Your task to perform on an android device: Open Google Maps and go to "Timeline" Image 0: 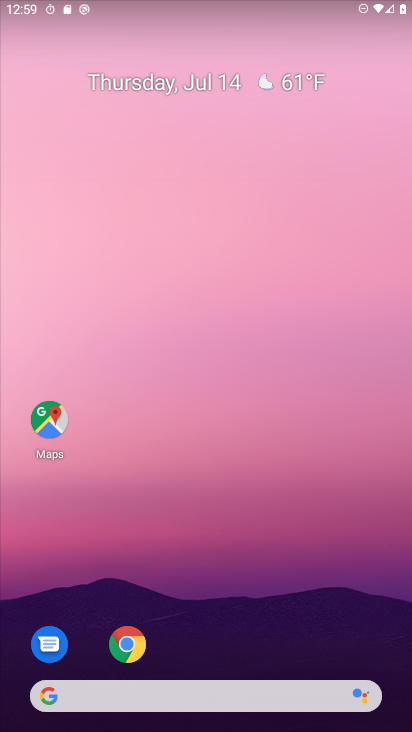
Step 0: drag from (215, 589) to (247, 151)
Your task to perform on an android device: Open Google Maps and go to "Timeline" Image 1: 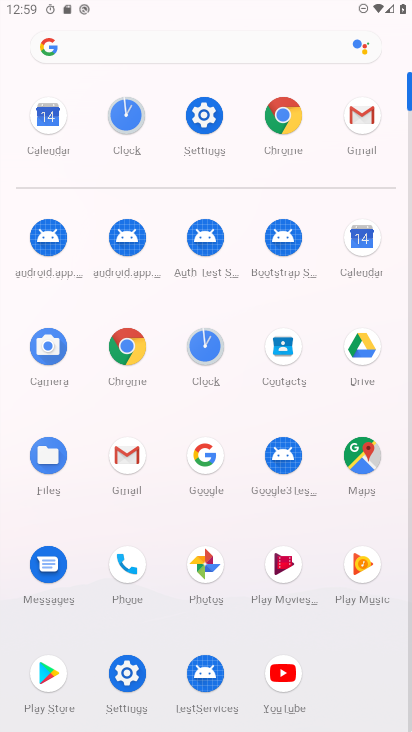
Step 1: click (362, 452)
Your task to perform on an android device: Open Google Maps and go to "Timeline" Image 2: 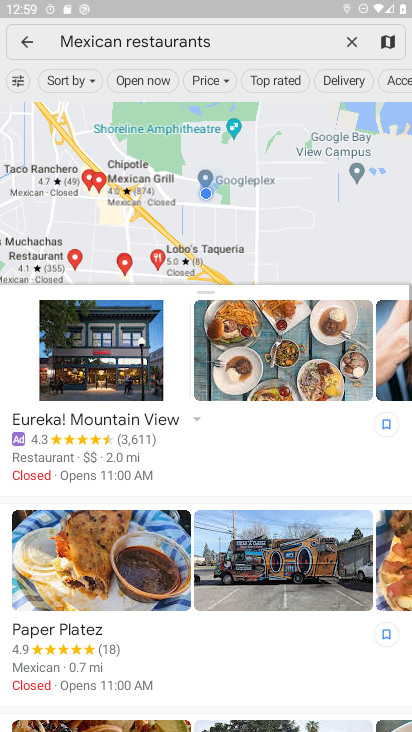
Step 2: click (46, 43)
Your task to perform on an android device: Open Google Maps and go to "Timeline" Image 3: 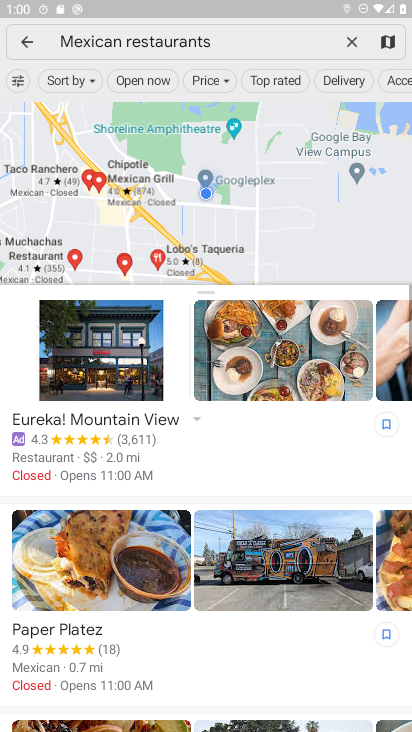
Step 3: click (32, 41)
Your task to perform on an android device: Open Google Maps and go to "Timeline" Image 4: 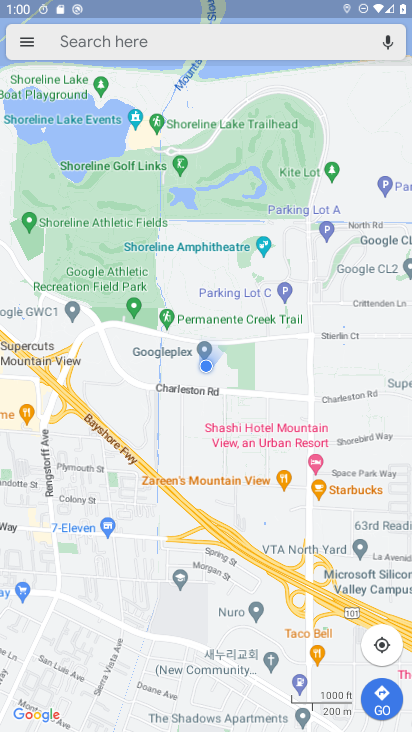
Step 4: click (32, 39)
Your task to perform on an android device: Open Google Maps and go to "Timeline" Image 5: 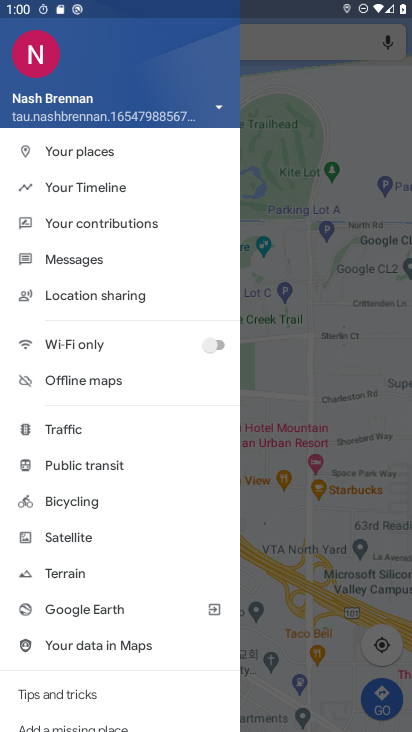
Step 5: click (106, 189)
Your task to perform on an android device: Open Google Maps and go to "Timeline" Image 6: 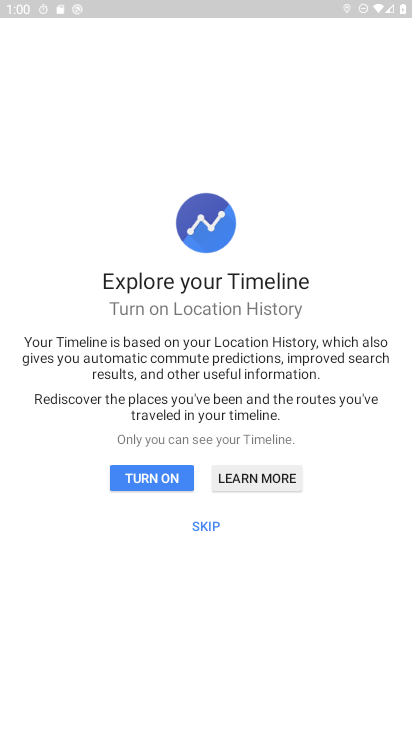
Step 6: click (200, 530)
Your task to perform on an android device: Open Google Maps and go to "Timeline" Image 7: 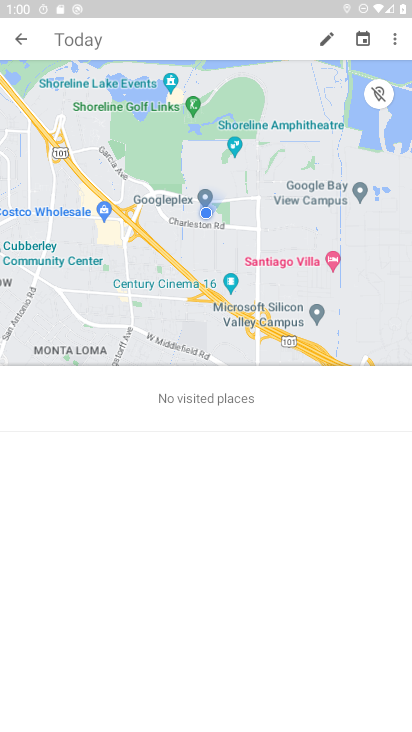
Step 7: task complete